Your task to perform on an android device: Go to accessibility settings Image 0: 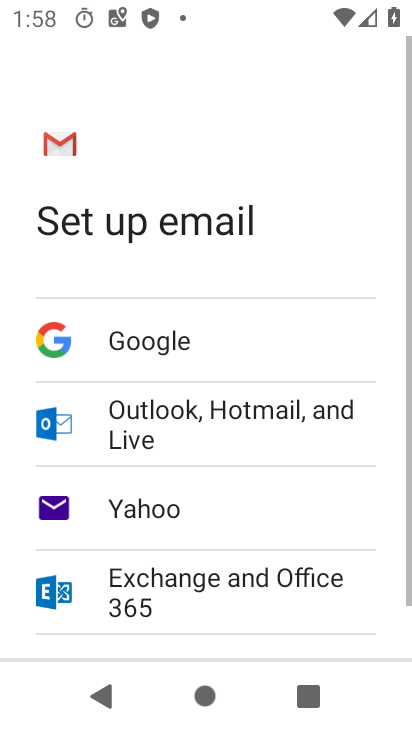
Step 0: press back button
Your task to perform on an android device: Go to accessibility settings Image 1: 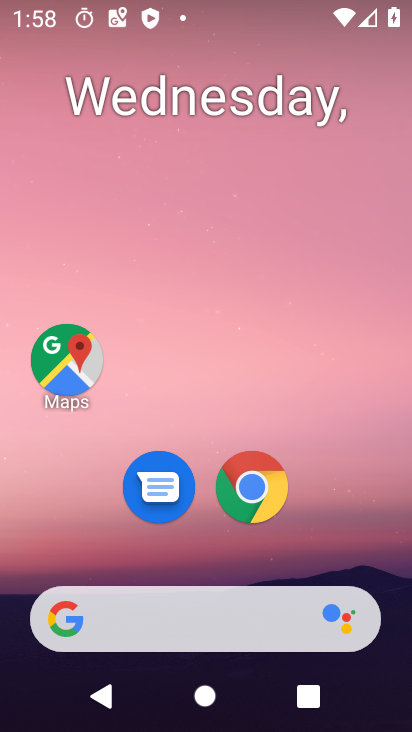
Step 1: drag from (194, 562) to (264, 35)
Your task to perform on an android device: Go to accessibility settings Image 2: 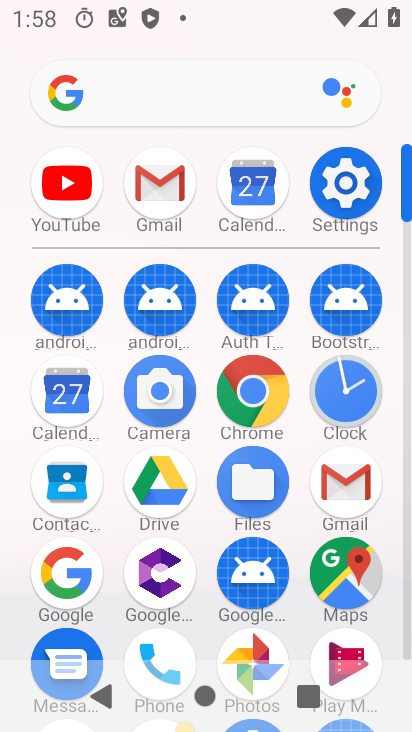
Step 2: click (349, 176)
Your task to perform on an android device: Go to accessibility settings Image 3: 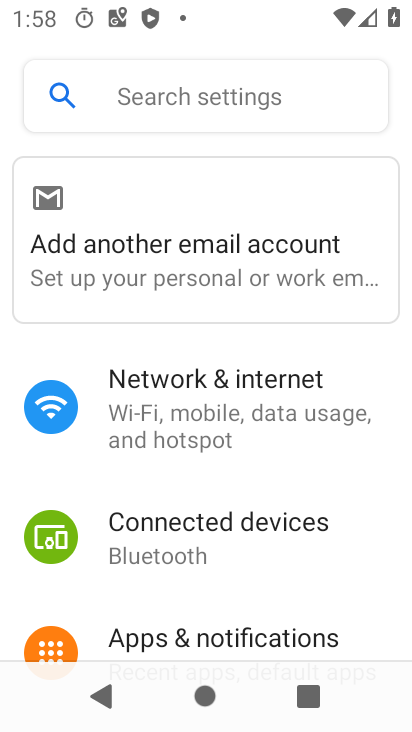
Step 3: drag from (212, 556) to (283, 72)
Your task to perform on an android device: Go to accessibility settings Image 4: 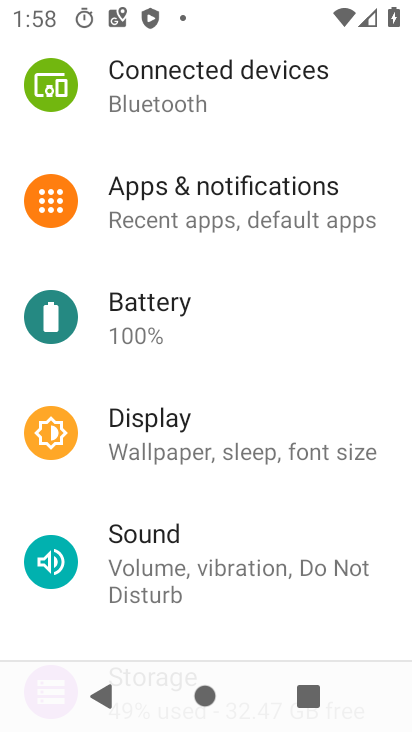
Step 4: drag from (213, 574) to (301, 18)
Your task to perform on an android device: Go to accessibility settings Image 5: 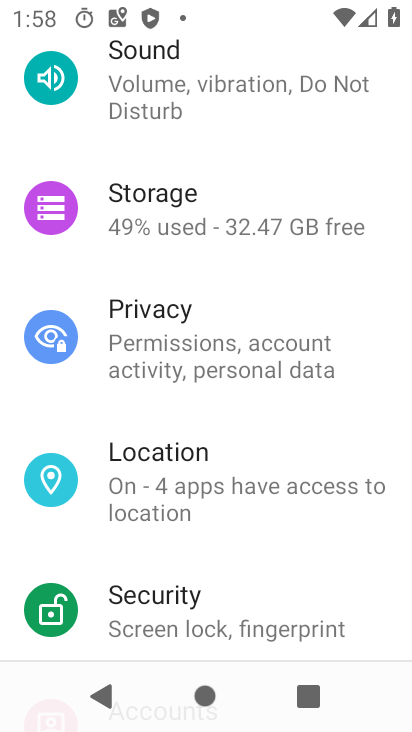
Step 5: drag from (203, 575) to (338, 30)
Your task to perform on an android device: Go to accessibility settings Image 6: 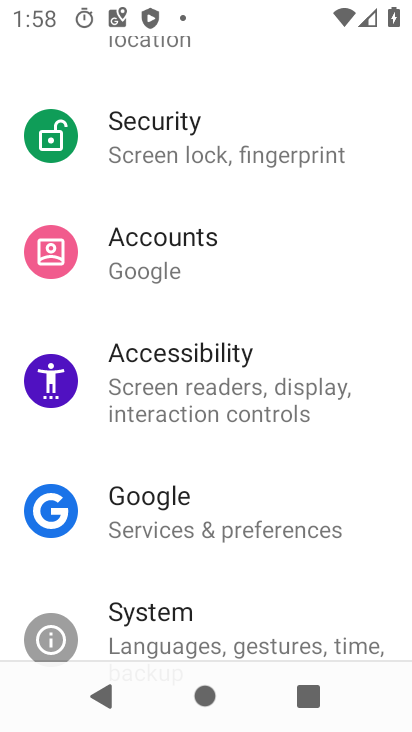
Step 6: click (199, 393)
Your task to perform on an android device: Go to accessibility settings Image 7: 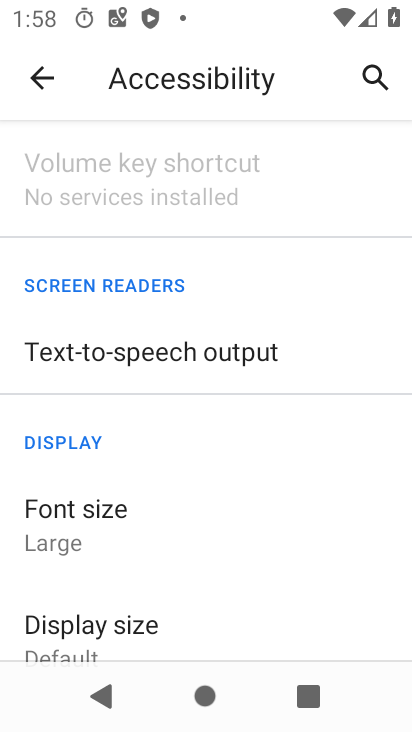
Step 7: task complete